Your task to perform on an android device: Turn off the flashlight Image 0: 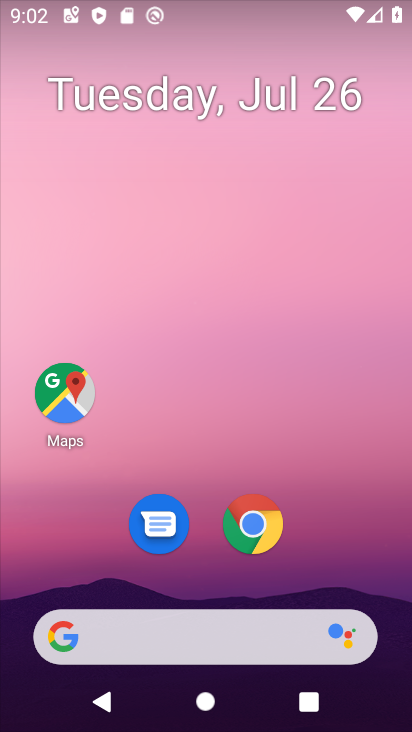
Step 0: press home button
Your task to perform on an android device: Turn off the flashlight Image 1: 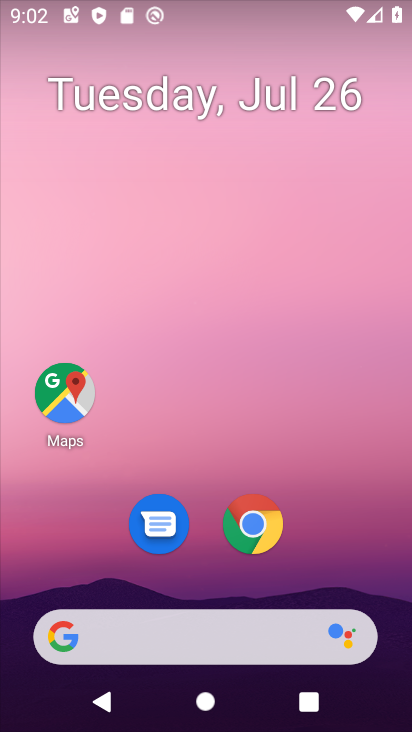
Step 1: task complete